Your task to perform on an android device: turn on wifi Image 0: 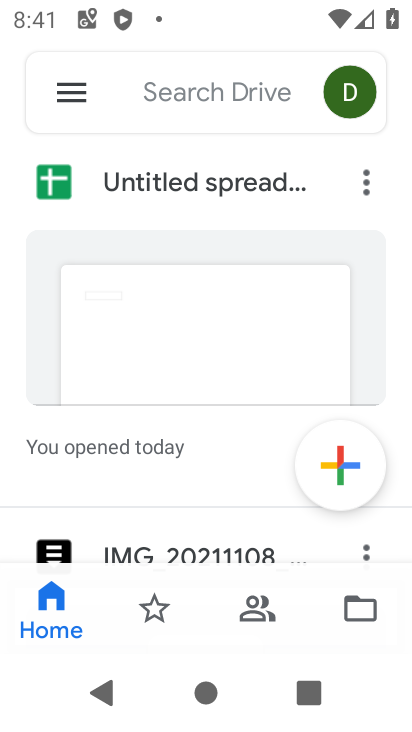
Step 0: drag from (251, 14) to (159, 521)
Your task to perform on an android device: turn on wifi Image 1: 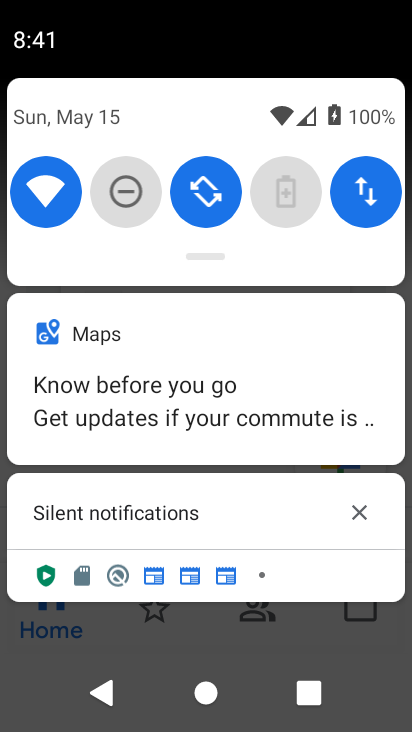
Step 1: task complete